Your task to perform on an android device: Go to Reddit.com Image 0: 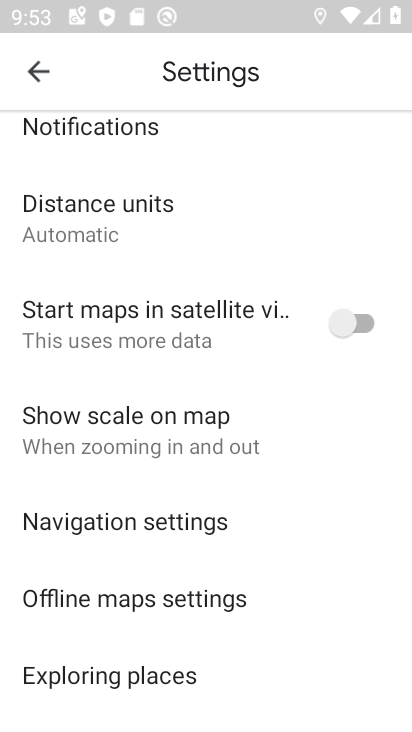
Step 0: press home button
Your task to perform on an android device: Go to Reddit.com Image 1: 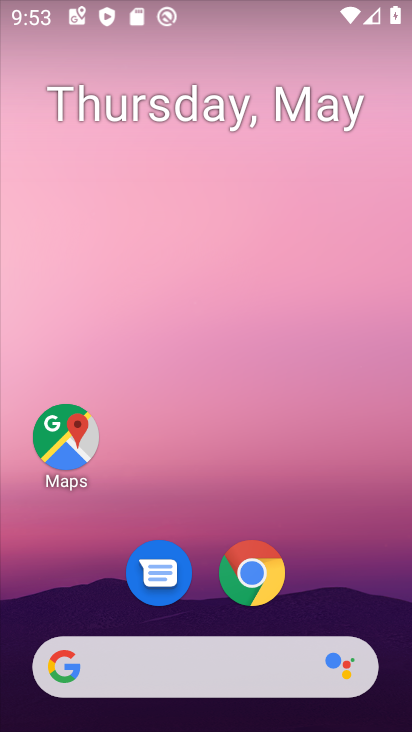
Step 1: click (233, 581)
Your task to perform on an android device: Go to Reddit.com Image 2: 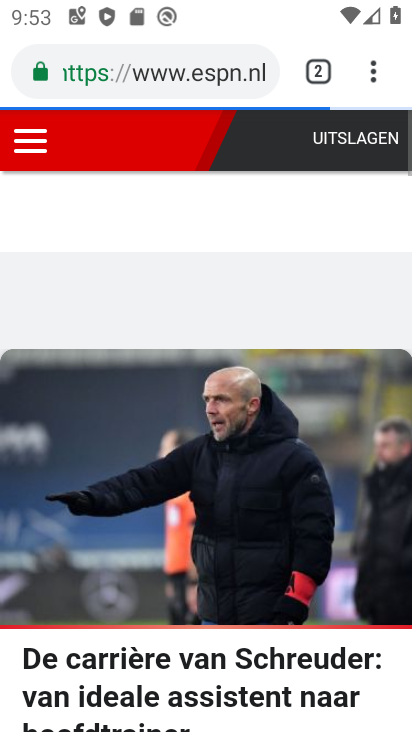
Step 2: click (306, 71)
Your task to perform on an android device: Go to Reddit.com Image 3: 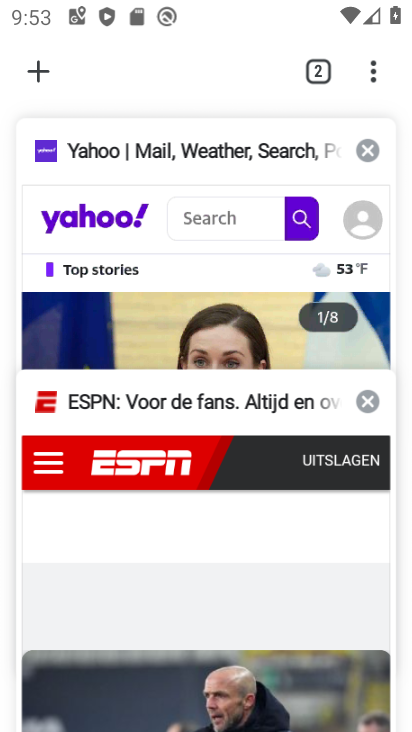
Step 3: click (37, 67)
Your task to perform on an android device: Go to Reddit.com Image 4: 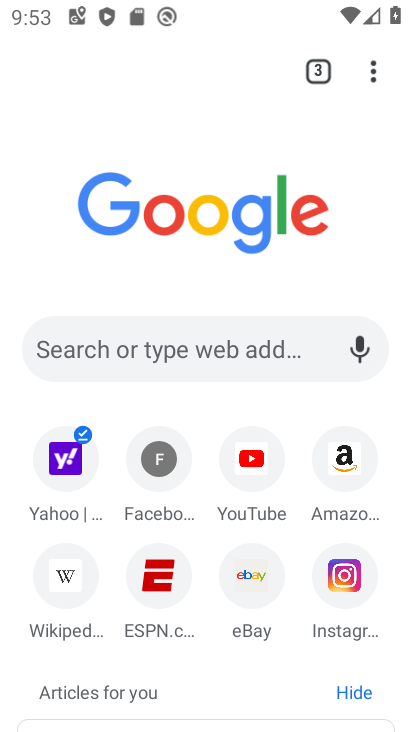
Step 4: click (197, 355)
Your task to perform on an android device: Go to Reddit.com Image 5: 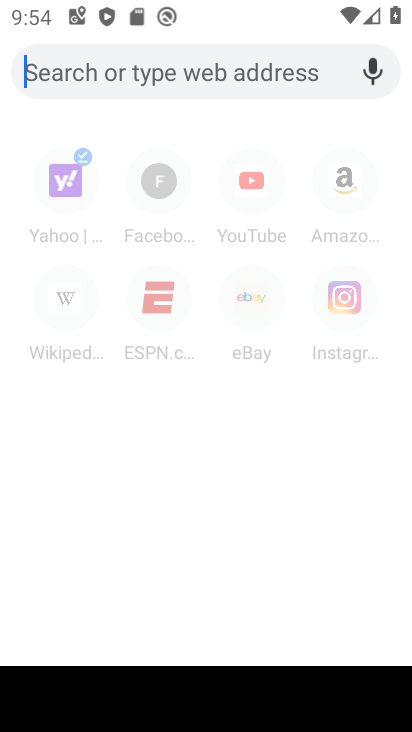
Step 5: type "Reddit.com"
Your task to perform on an android device: Go to Reddit.com Image 6: 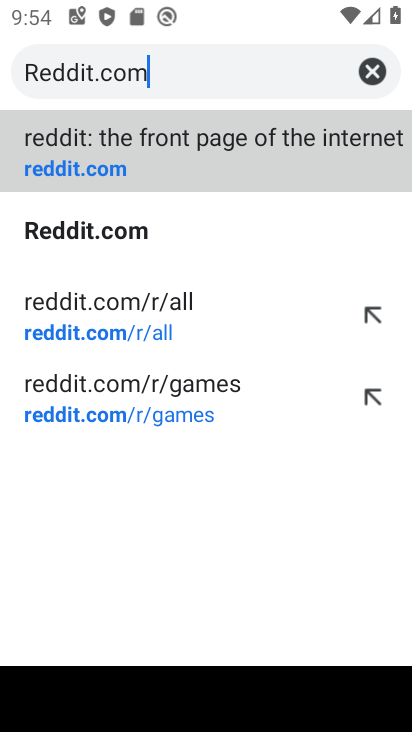
Step 6: click (103, 220)
Your task to perform on an android device: Go to Reddit.com Image 7: 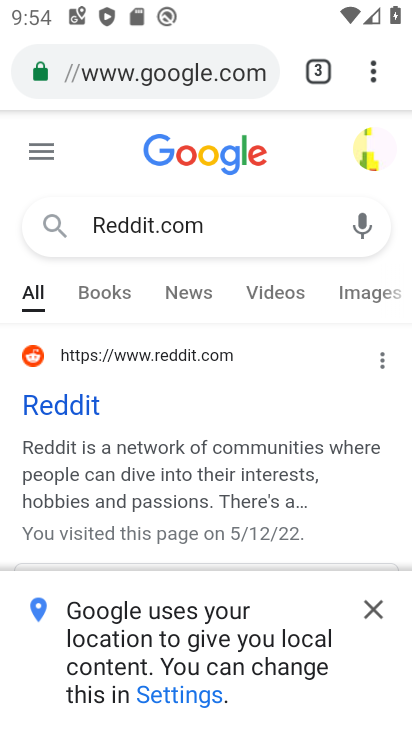
Step 7: click (55, 409)
Your task to perform on an android device: Go to Reddit.com Image 8: 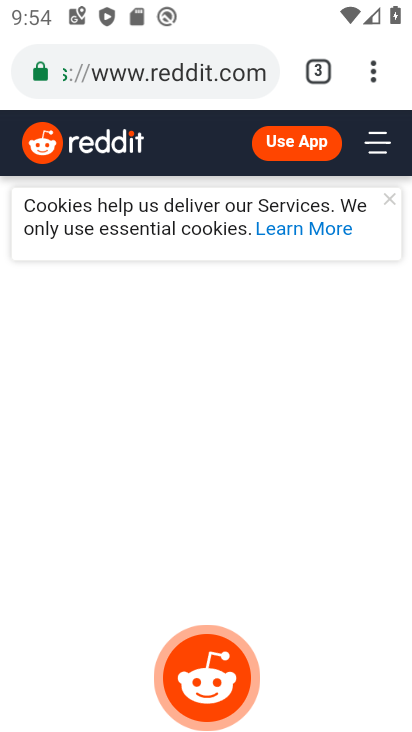
Step 8: task complete